Your task to perform on an android device: Go to privacy settings Image 0: 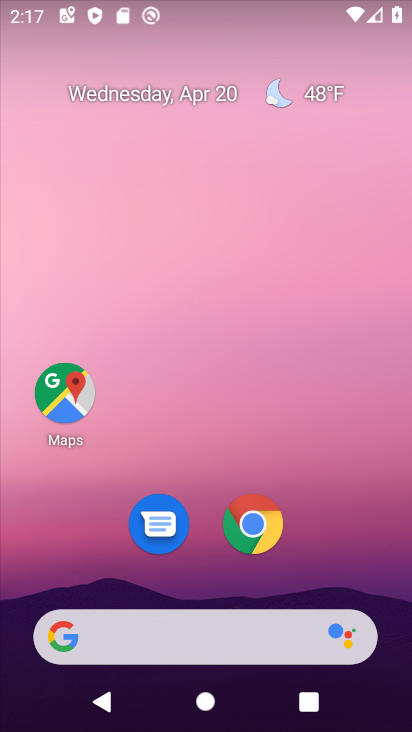
Step 0: drag from (340, 543) to (312, 57)
Your task to perform on an android device: Go to privacy settings Image 1: 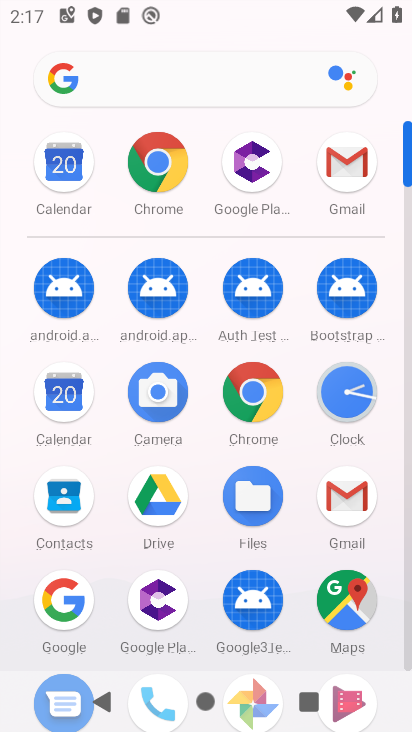
Step 1: click (245, 381)
Your task to perform on an android device: Go to privacy settings Image 2: 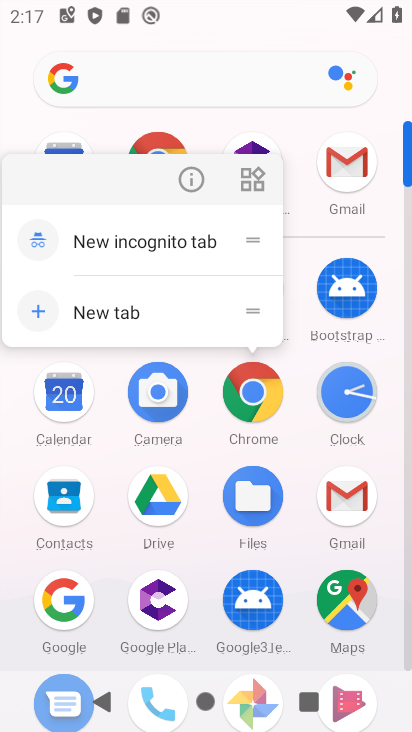
Step 2: click (245, 381)
Your task to perform on an android device: Go to privacy settings Image 3: 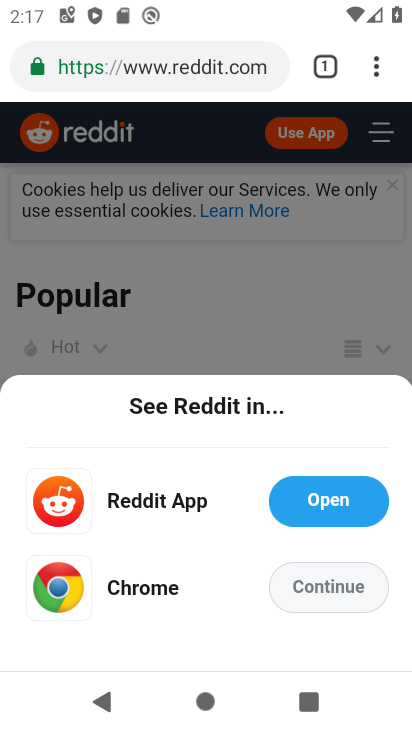
Step 3: click (371, 70)
Your task to perform on an android device: Go to privacy settings Image 4: 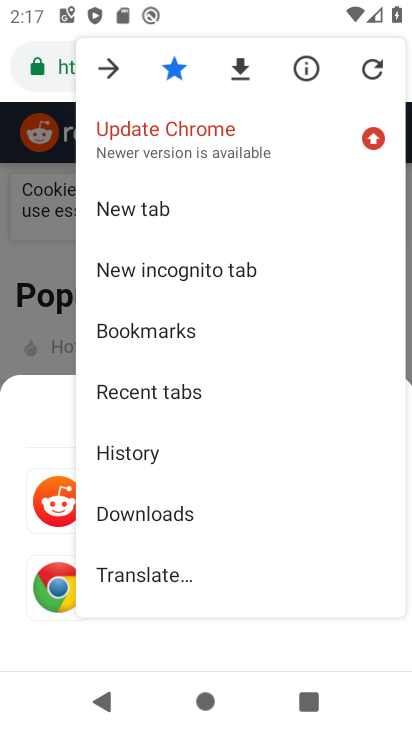
Step 4: drag from (199, 560) to (199, 198)
Your task to perform on an android device: Go to privacy settings Image 5: 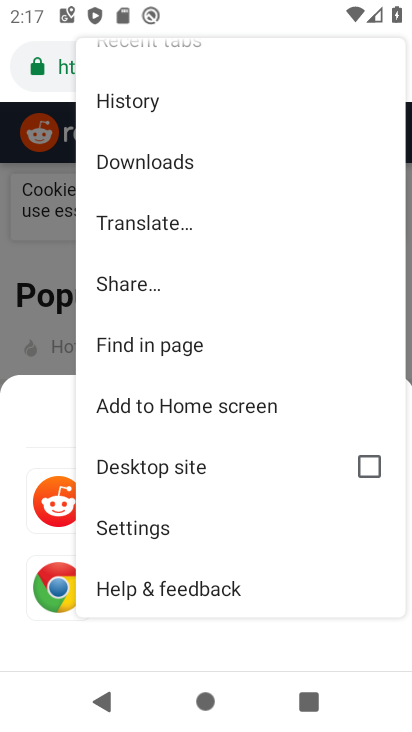
Step 5: click (180, 527)
Your task to perform on an android device: Go to privacy settings Image 6: 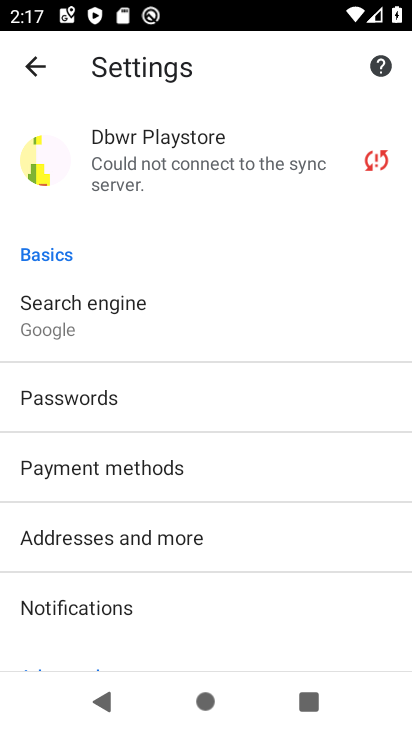
Step 6: drag from (311, 572) to (297, 154)
Your task to perform on an android device: Go to privacy settings Image 7: 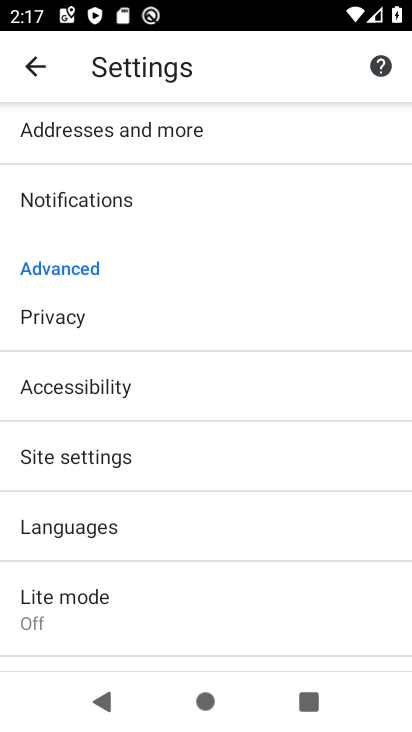
Step 7: click (127, 329)
Your task to perform on an android device: Go to privacy settings Image 8: 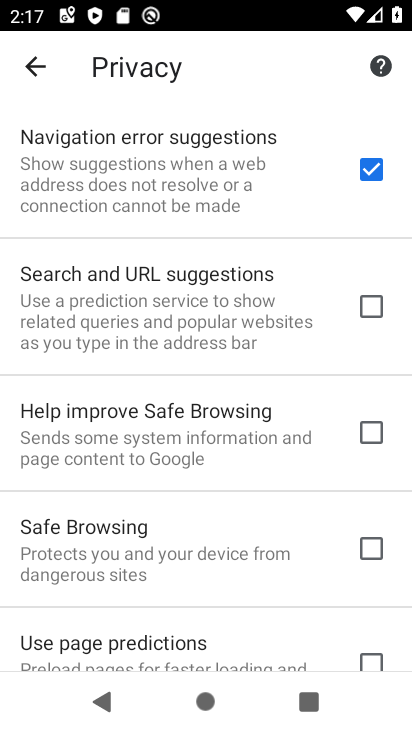
Step 8: task complete